Your task to perform on an android device: What's the weather? Image 0: 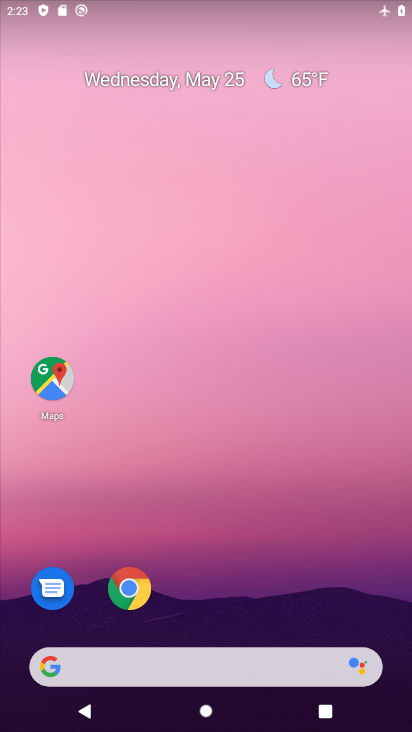
Step 0: click (135, 584)
Your task to perform on an android device: What's the weather? Image 1: 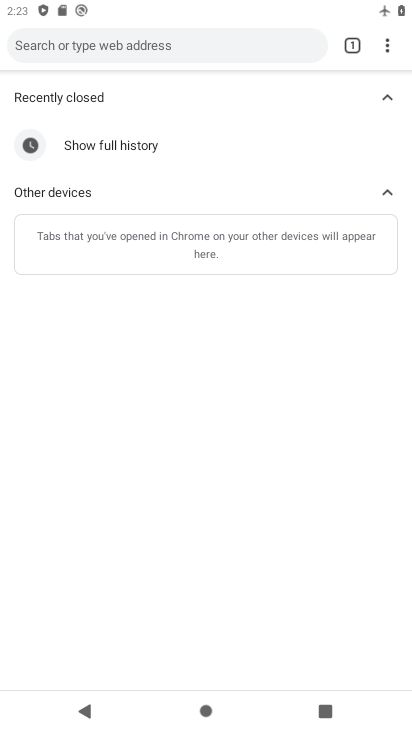
Step 1: click (57, 52)
Your task to perform on an android device: What's the weather? Image 2: 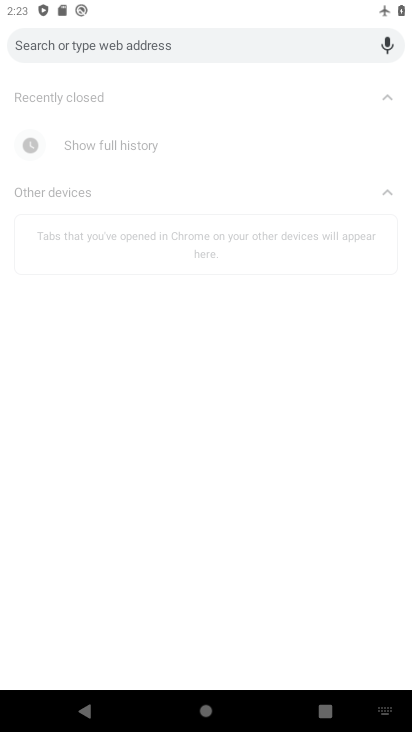
Step 2: type "weather"
Your task to perform on an android device: What's the weather? Image 3: 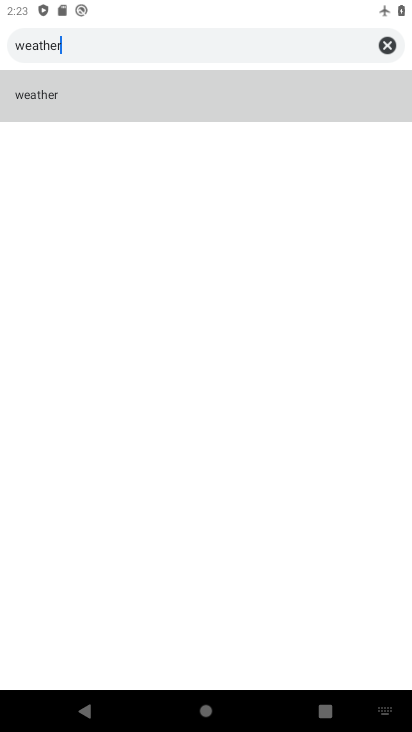
Step 3: click (139, 106)
Your task to perform on an android device: What's the weather? Image 4: 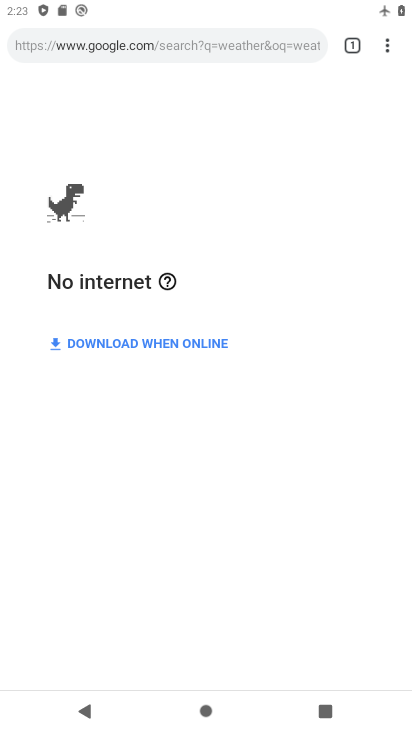
Step 4: task complete